Your task to perform on an android device: See recent photos Image 0: 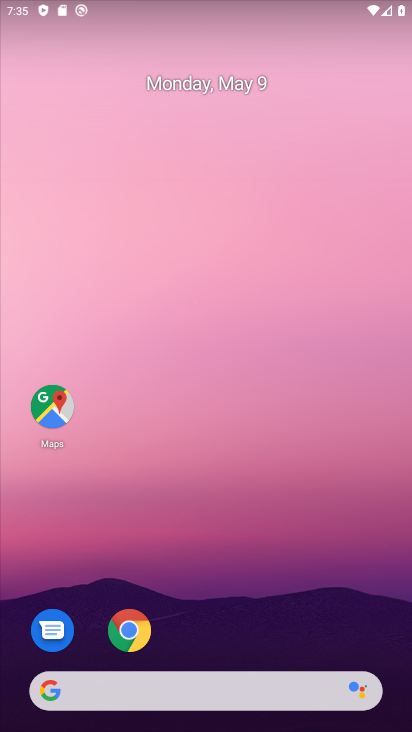
Step 0: drag from (320, 581) to (321, 118)
Your task to perform on an android device: See recent photos Image 1: 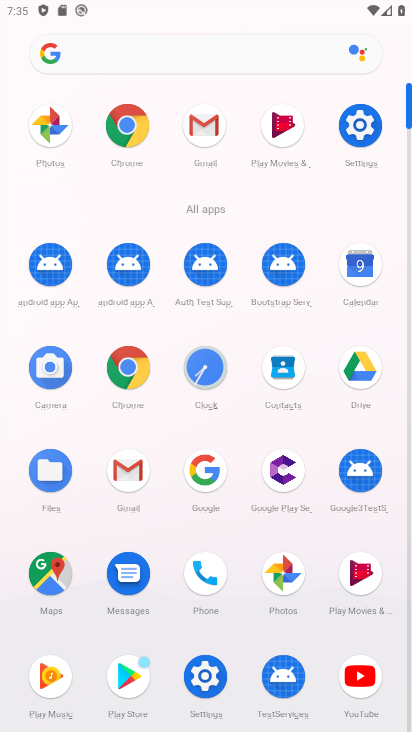
Step 1: click (284, 575)
Your task to perform on an android device: See recent photos Image 2: 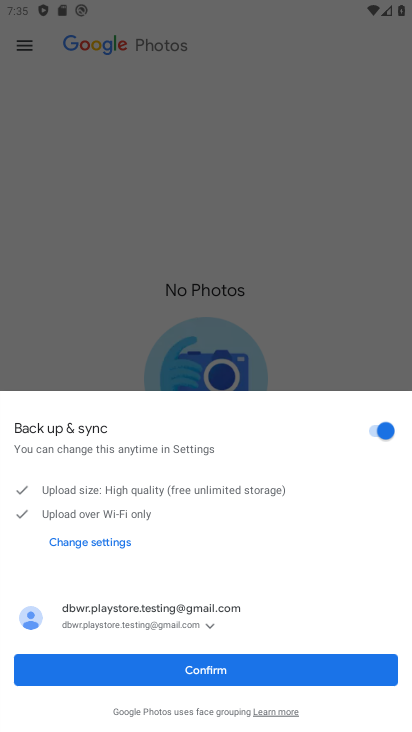
Step 2: click (212, 673)
Your task to perform on an android device: See recent photos Image 3: 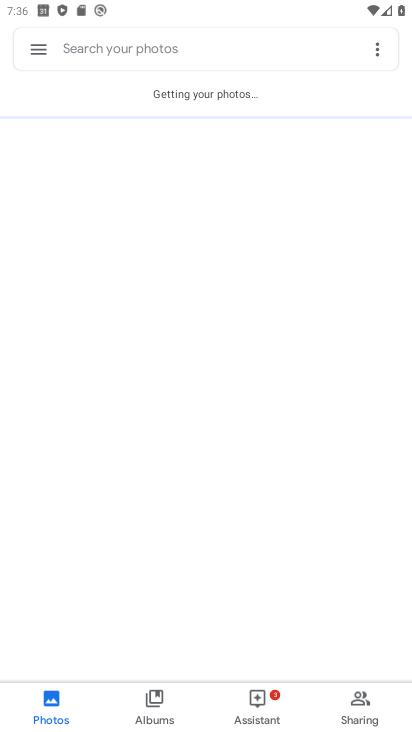
Step 3: click (36, 48)
Your task to perform on an android device: See recent photos Image 4: 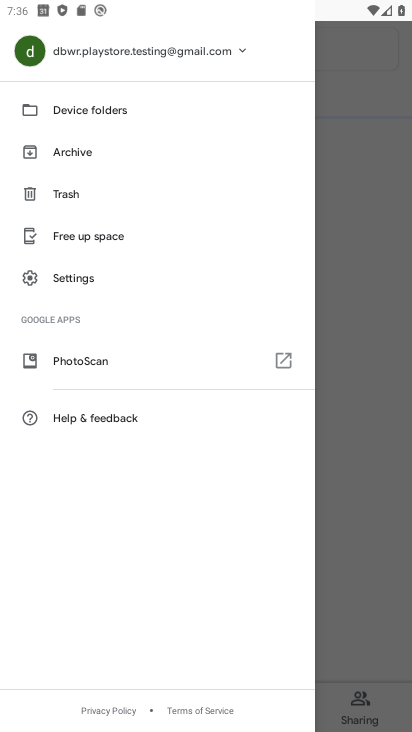
Step 4: click (364, 625)
Your task to perform on an android device: See recent photos Image 5: 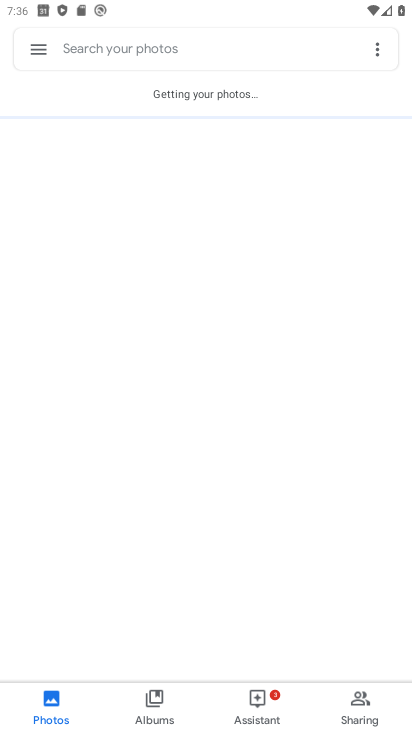
Step 5: click (156, 704)
Your task to perform on an android device: See recent photos Image 6: 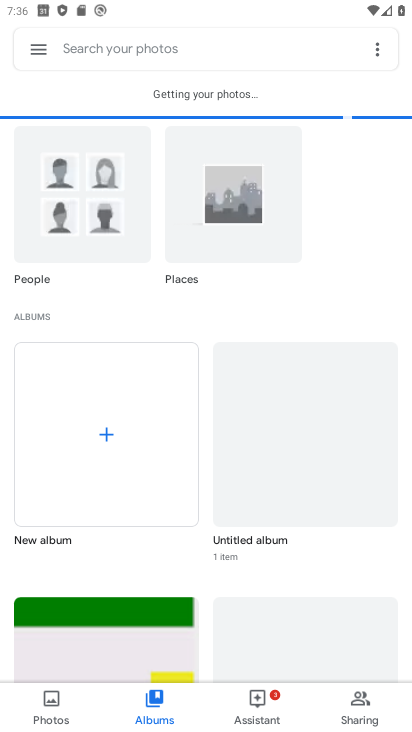
Step 6: click (39, 718)
Your task to perform on an android device: See recent photos Image 7: 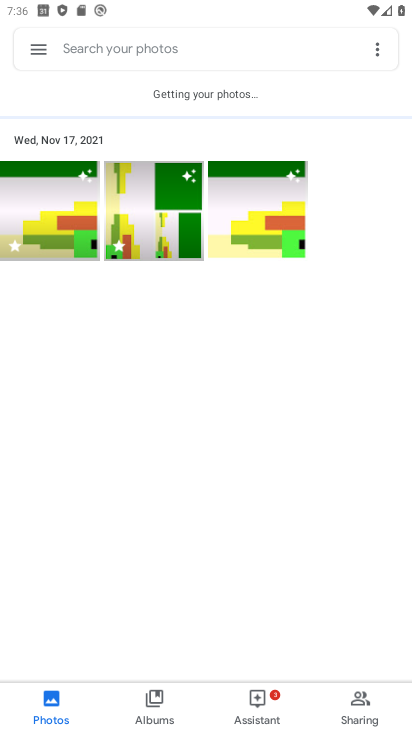
Step 7: click (49, 219)
Your task to perform on an android device: See recent photos Image 8: 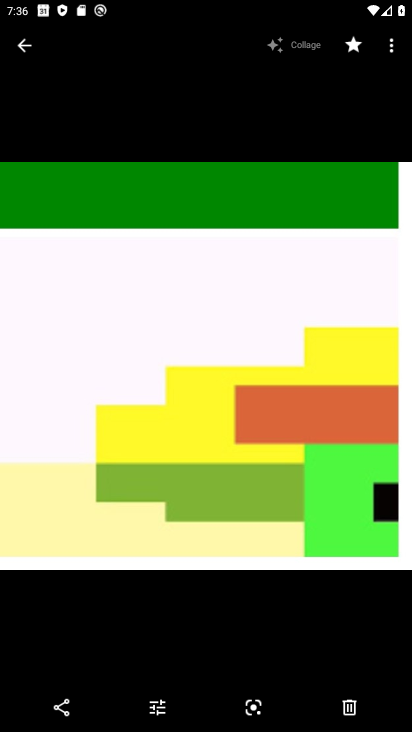
Step 8: task complete